Your task to perform on an android device: turn off location Image 0: 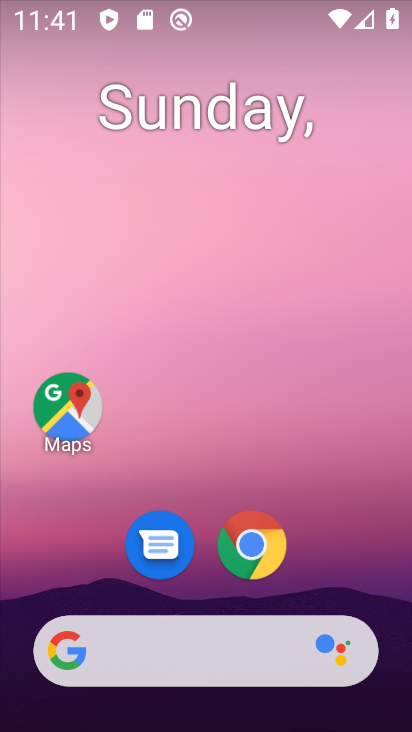
Step 0: drag from (385, 598) to (377, 211)
Your task to perform on an android device: turn off location Image 1: 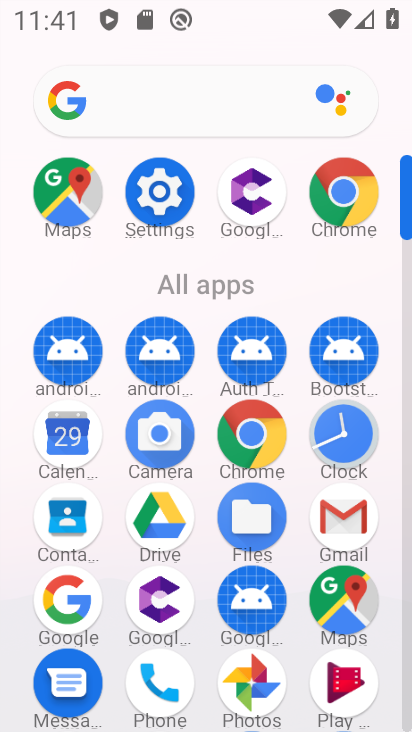
Step 1: click (170, 202)
Your task to perform on an android device: turn off location Image 2: 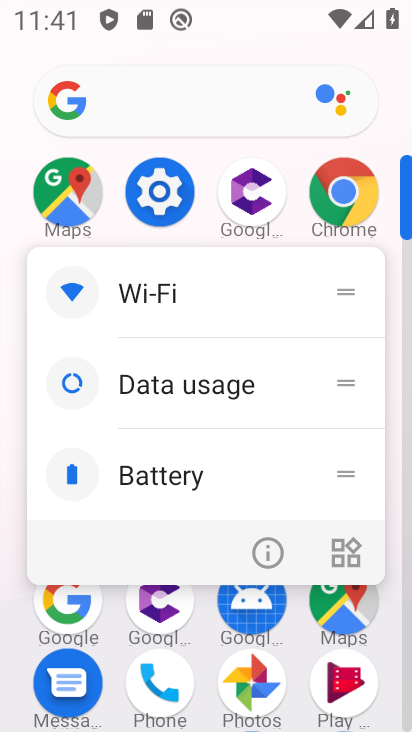
Step 2: click (170, 202)
Your task to perform on an android device: turn off location Image 3: 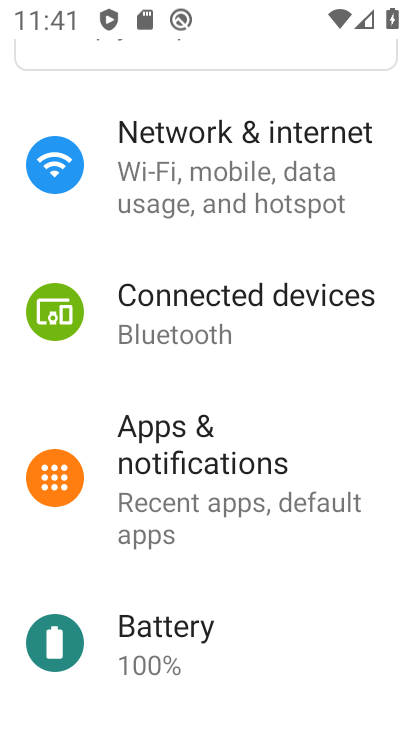
Step 3: drag from (366, 205) to (357, 398)
Your task to perform on an android device: turn off location Image 4: 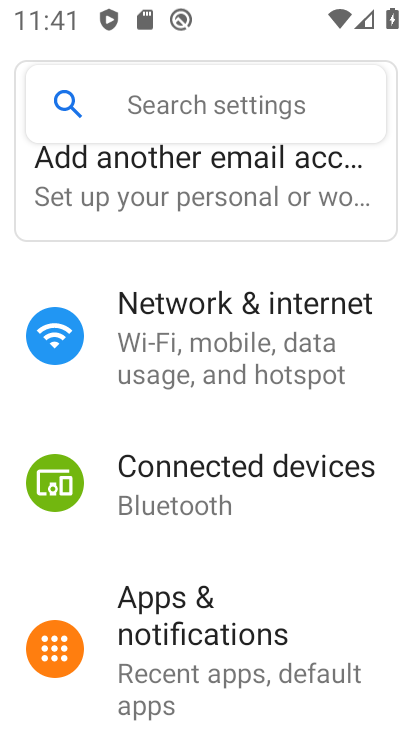
Step 4: drag from (375, 169) to (367, 438)
Your task to perform on an android device: turn off location Image 5: 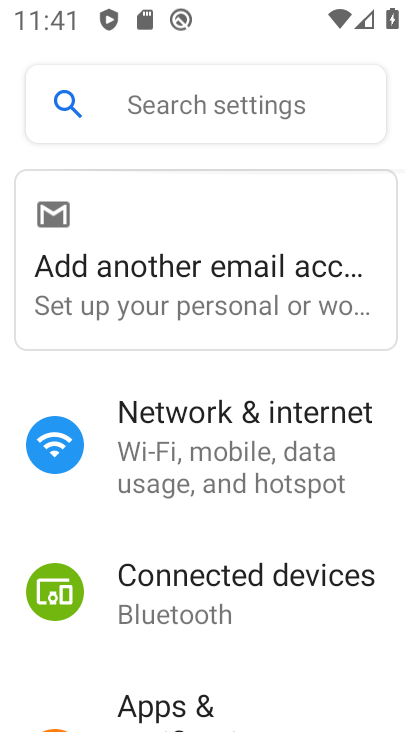
Step 5: drag from (362, 501) to (375, 342)
Your task to perform on an android device: turn off location Image 6: 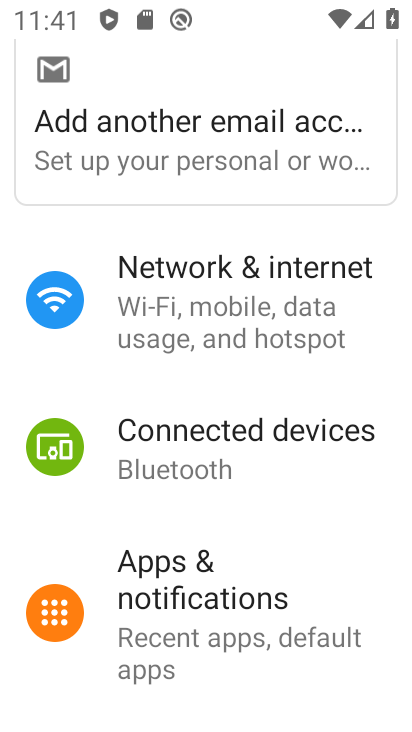
Step 6: drag from (344, 535) to (351, 394)
Your task to perform on an android device: turn off location Image 7: 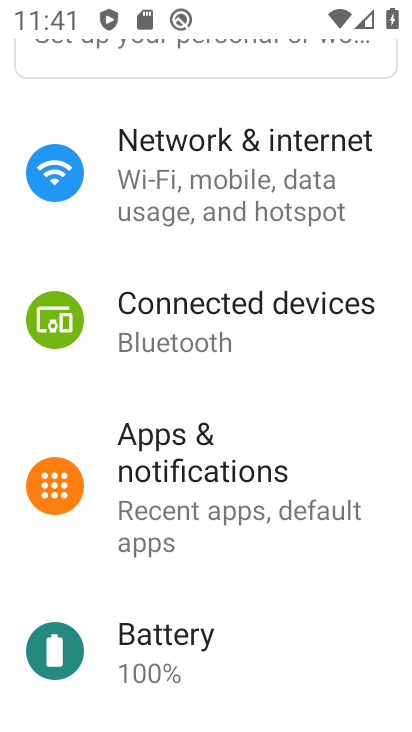
Step 7: drag from (335, 558) to (340, 414)
Your task to perform on an android device: turn off location Image 8: 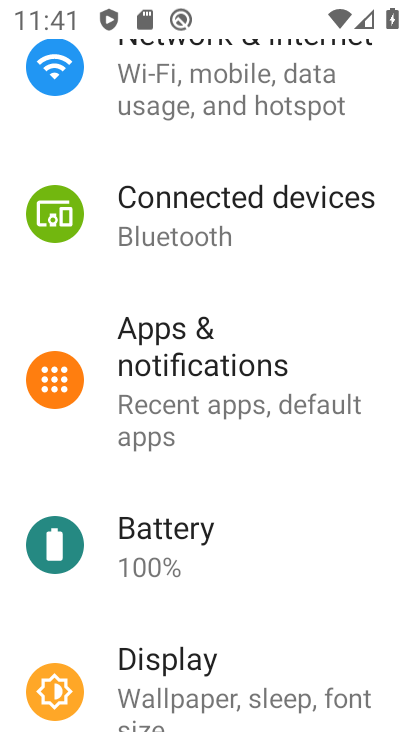
Step 8: drag from (333, 556) to (336, 412)
Your task to perform on an android device: turn off location Image 9: 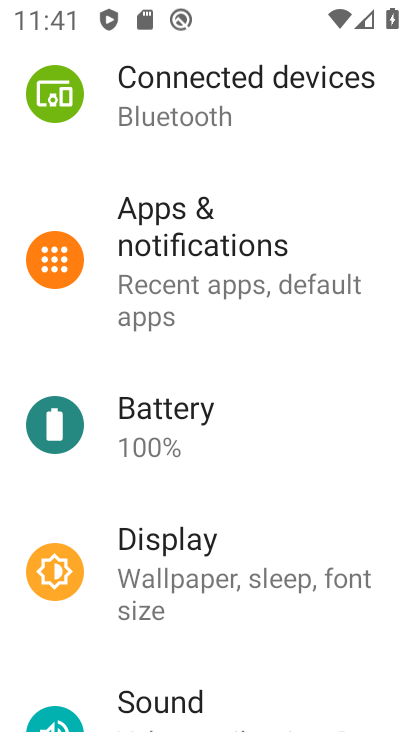
Step 9: drag from (346, 627) to (354, 466)
Your task to perform on an android device: turn off location Image 10: 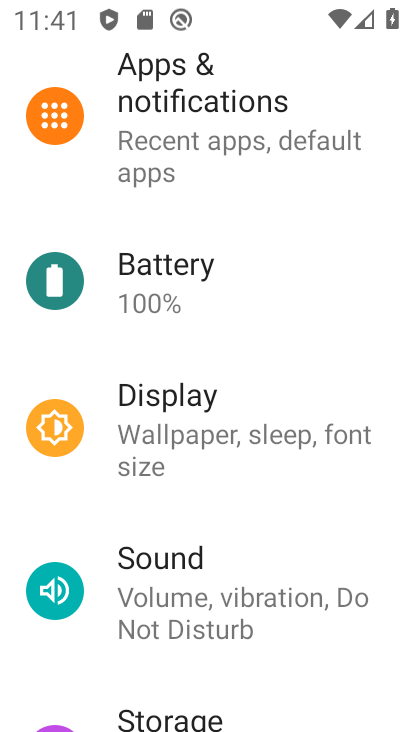
Step 10: drag from (339, 640) to (357, 431)
Your task to perform on an android device: turn off location Image 11: 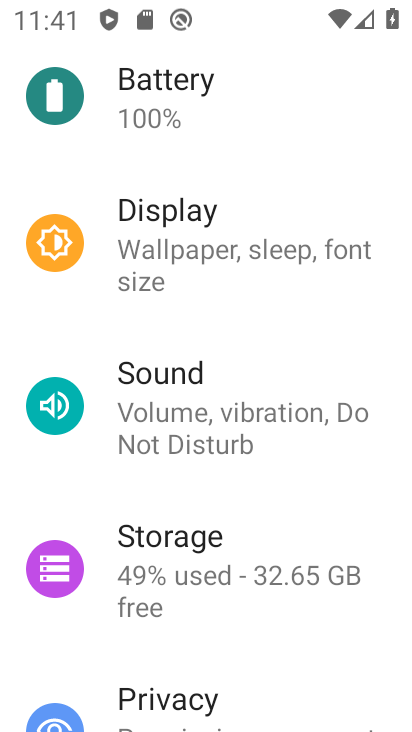
Step 11: drag from (339, 634) to (349, 458)
Your task to perform on an android device: turn off location Image 12: 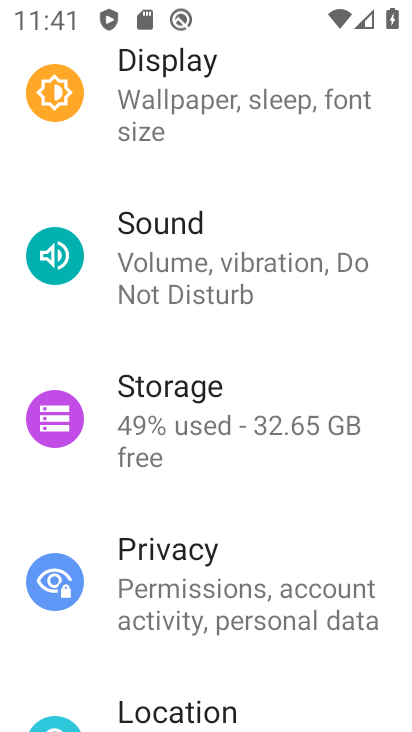
Step 12: drag from (314, 660) to (323, 479)
Your task to perform on an android device: turn off location Image 13: 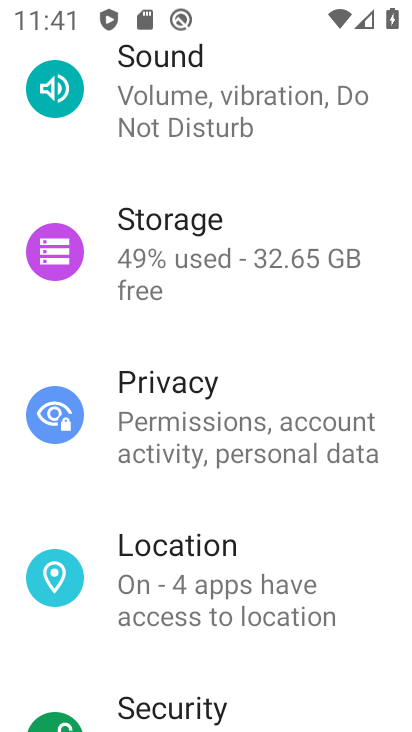
Step 13: click (295, 602)
Your task to perform on an android device: turn off location Image 14: 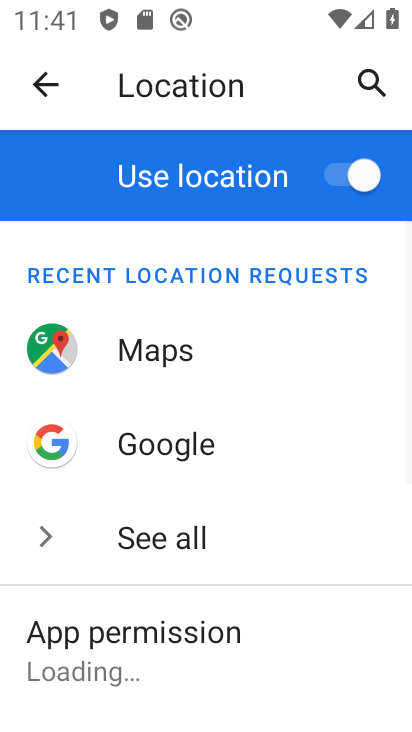
Step 14: click (352, 183)
Your task to perform on an android device: turn off location Image 15: 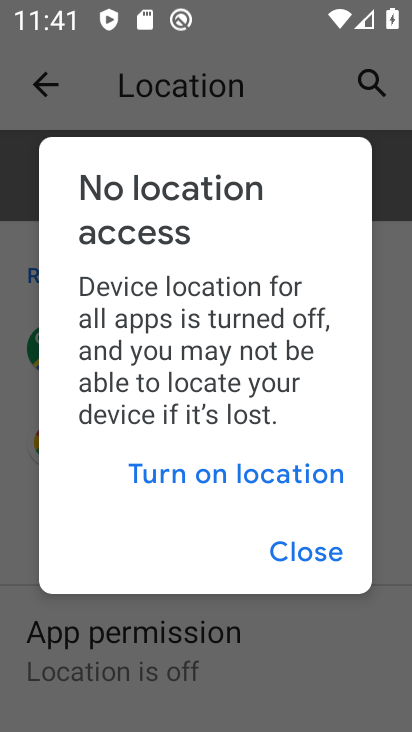
Step 15: task complete